Your task to perform on an android device: Go to Maps Image 0: 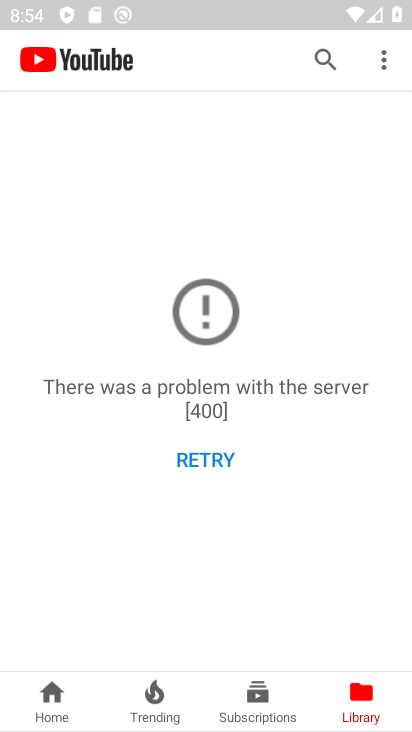
Step 0: press home button
Your task to perform on an android device: Go to Maps Image 1: 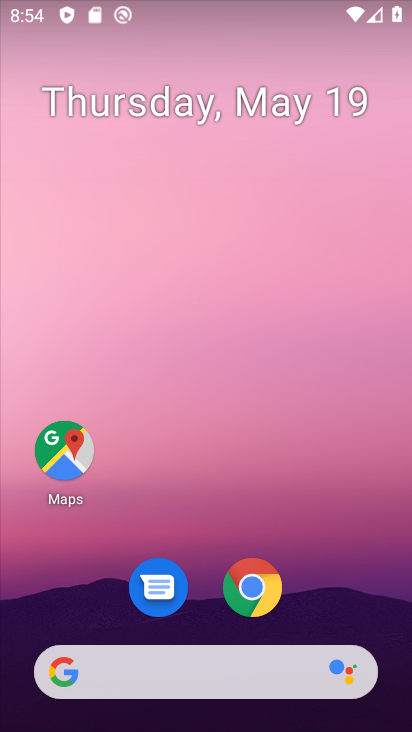
Step 1: click (61, 441)
Your task to perform on an android device: Go to Maps Image 2: 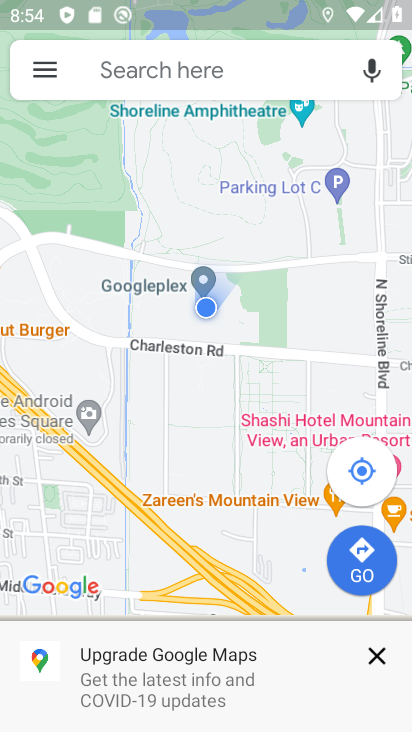
Step 2: task complete